Your task to perform on an android device: add a label to a message in the gmail app Image 0: 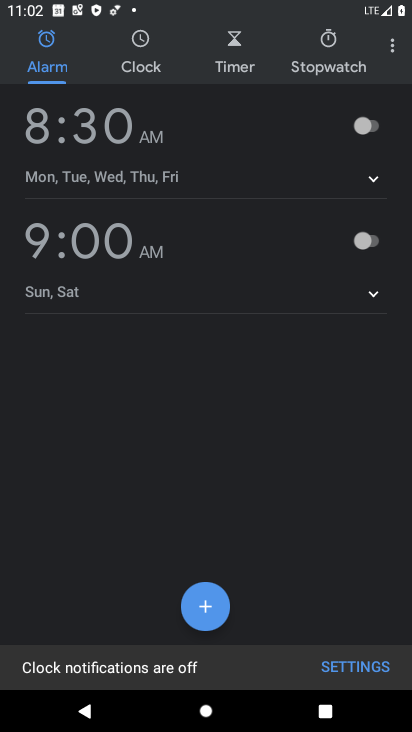
Step 0: press home button
Your task to perform on an android device: add a label to a message in the gmail app Image 1: 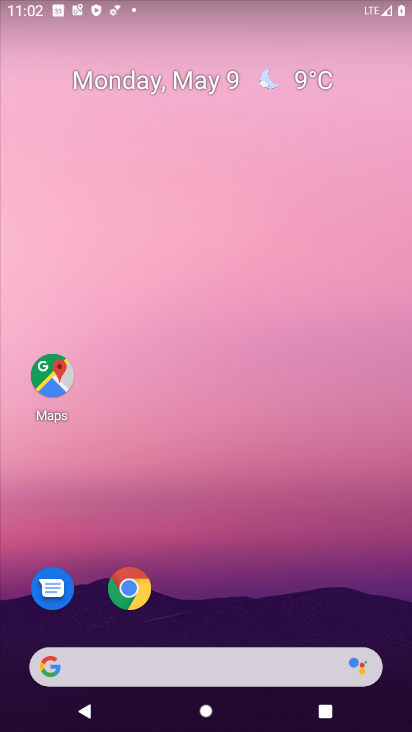
Step 1: drag from (173, 662) to (251, 63)
Your task to perform on an android device: add a label to a message in the gmail app Image 2: 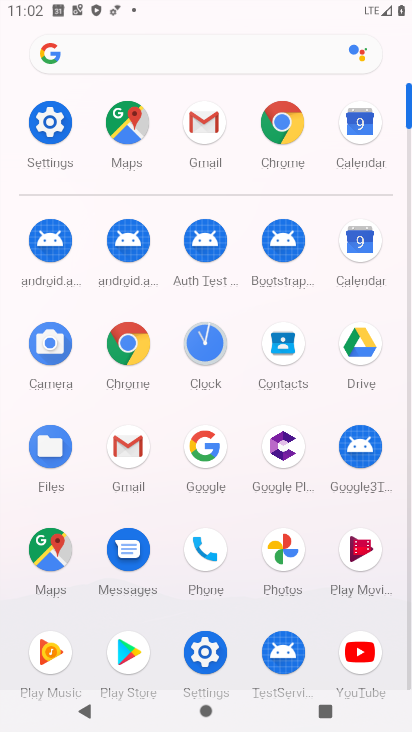
Step 2: click (200, 130)
Your task to perform on an android device: add a label to a message in the gmail app Image 3: 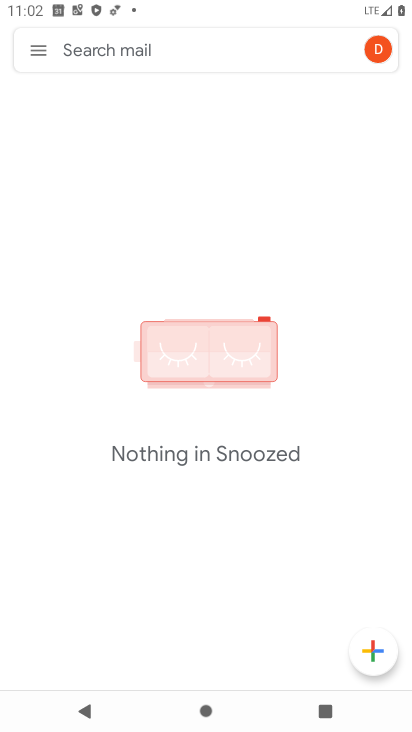
Step 3: task complete